Your task to perform on an android device: toggle sleep mode Image 0: 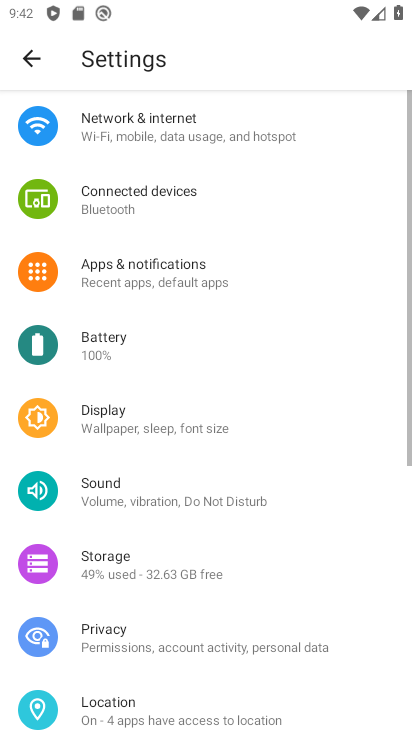
Step 0: press home button
Your task to perform on an android device: toggle sleep mode Image 1: 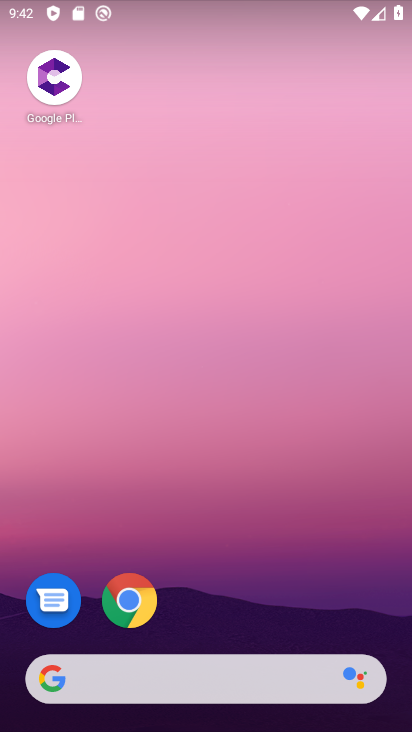
Step 1: drag from (300, 486) to (205, 60)
Your task to perform on an android device: toggle sleep mode Image 2: 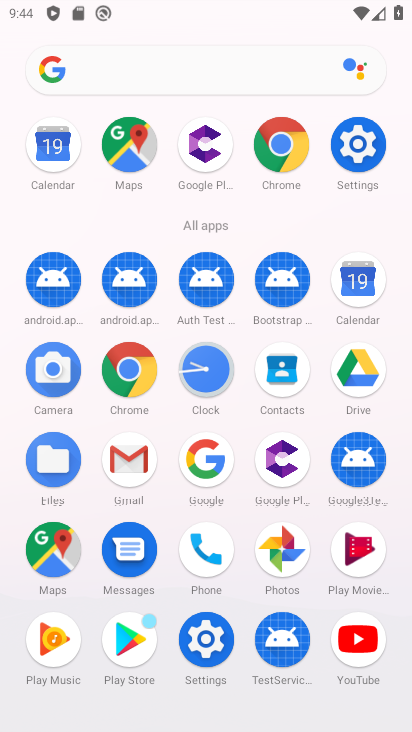
Step 2: click (351, 127)
Your task to perform on an android device: toggle sleep mode Image 3: 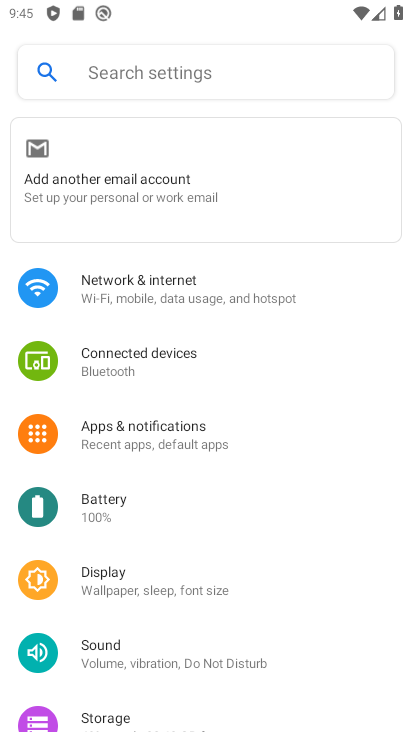
Step 3: task complete